Your task to perform on an android device: Search for usb-c on costco, select the first entry, add it to the cart, then select checkout. Image 0: 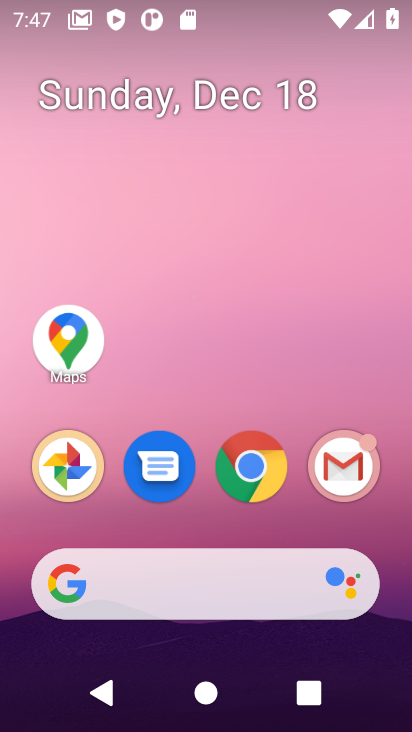
Step 0: click (258, 469)
Your task to perform on an android device: Search for usb-c on costco, select the first entry, add it to the cart, then select checkout. Image 1: 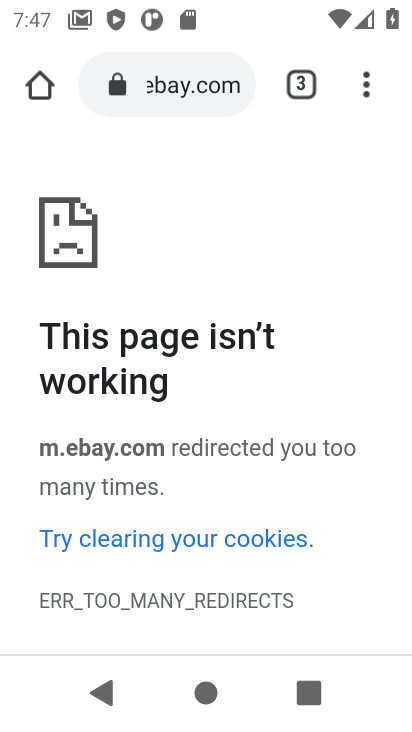
Step 1: click (182, 95)
Your task to perform on an android device: Search for usb-c on costco, select the first entry, add it to the cart, then select checkout. Image 2: 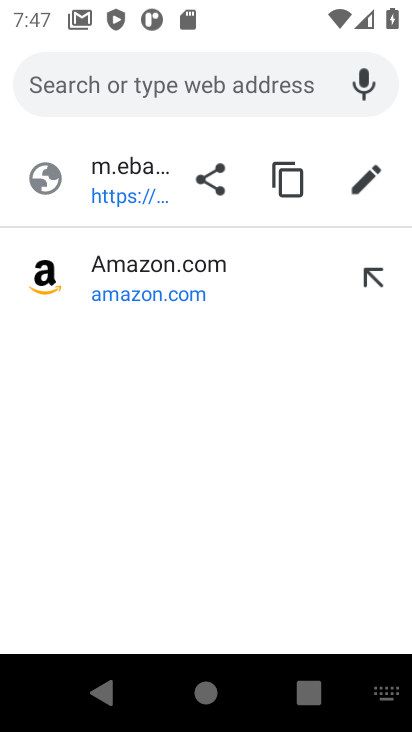
Step 2: type "COSTCO"
Your task to perform on an android device: Search for usb-c on costco, select the first entry, add it to the cart, then select checkout. Image 3: 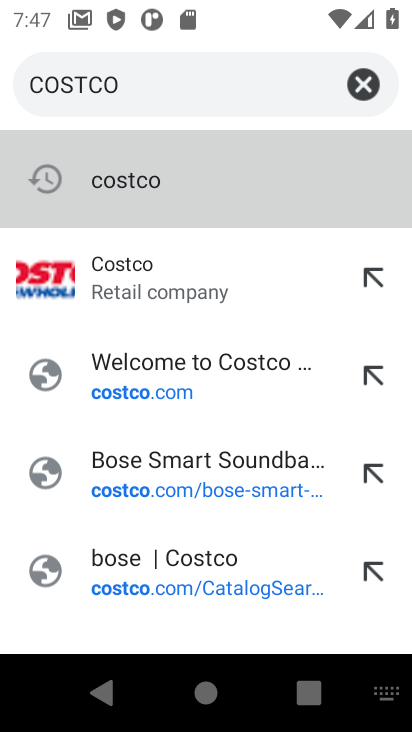
Step 3: click (126, 290)
Your task to perform on an android device: Search for usb-c on costco, select the first entry, add it to the cart, then select checkout. Image 4: 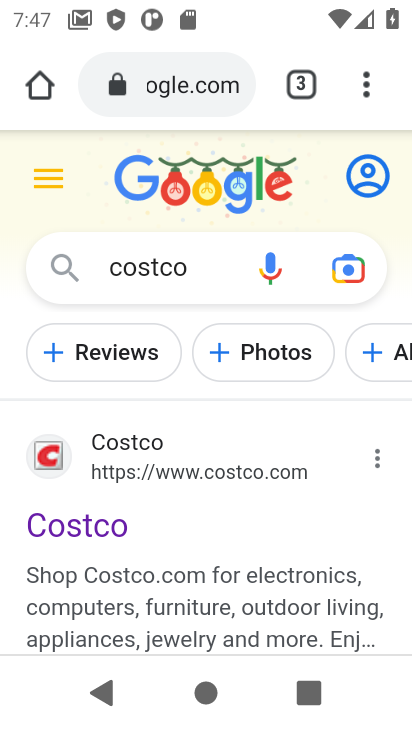
Step 4: click (95, 514)
Your task to perform on an android device: Search for usb-c on costco, select the first entry, add it to the cart, then select checkout. Image 5: 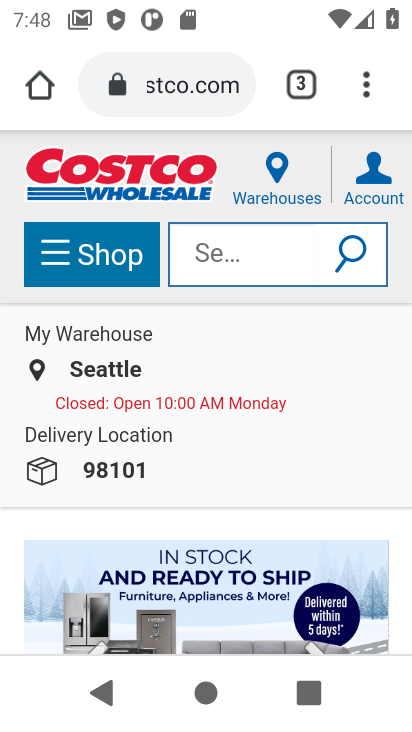
Step 5: click (270, 250)
Your task to perform on an android device: Search for usb-c on costco, select the first entry, add it to the cart, then select checkout. Image 6: 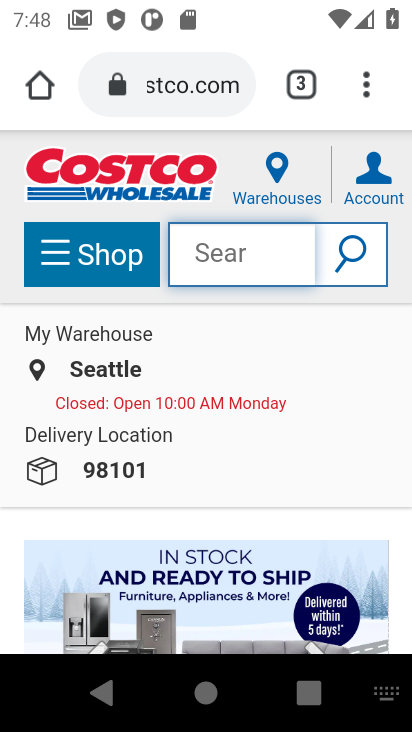
Step 6: type "usb-c"
Your task to perform on an android device: Search for usb-c on costco, select the first entry, add it to the cart, then select checkout. Image 7: 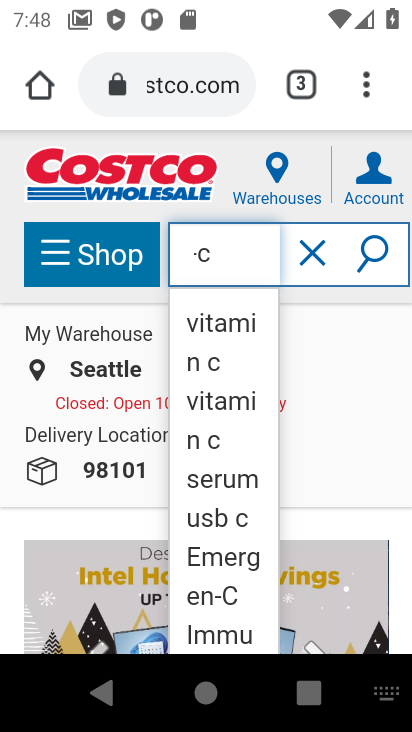
Step 7: click (248, 318)
Your task to perform on an android device: Search for usb-c on costco, select the first entry, add it to the cart, then select checkout. Image 8: 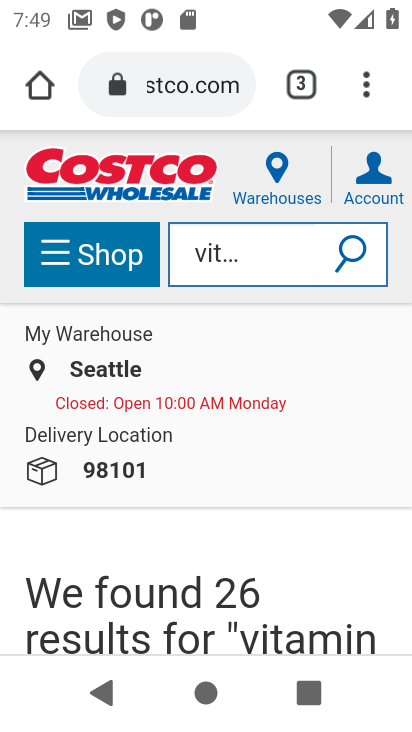
Step 8: drag from (227, 611) to (200, 76)
Your task to perform on an android device: Search for usb-c on costco, select the first entry, add it to the cart, then select checkout. Image 9: 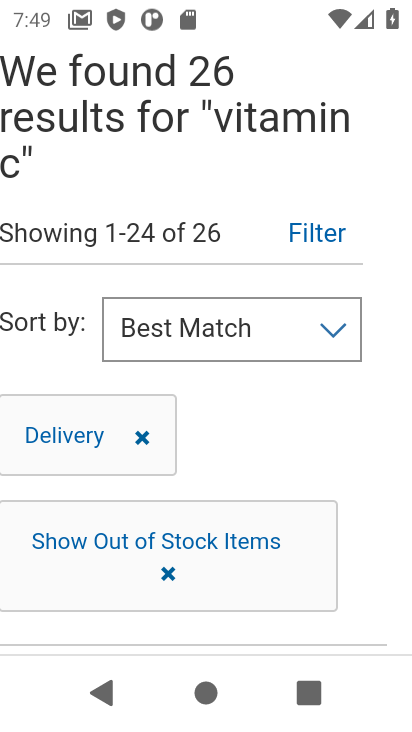
Step 9: drag from (257, 578) to (228, 126)
Your task to perform on an android device: Search for usb-c on costco, select the first entry, add it to the cart, then select checkout. Image 10: 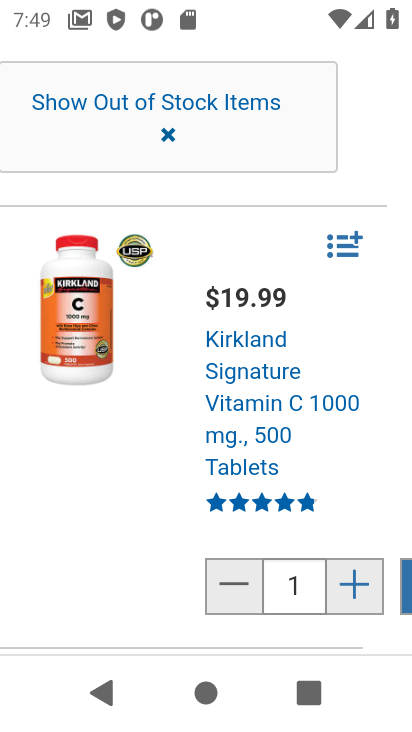
Step 10: click (349, 371)
Your task to perform on an android device: Search for usb-c on costco, select the first entry, add it to the cart, then select checkout. Image 11: 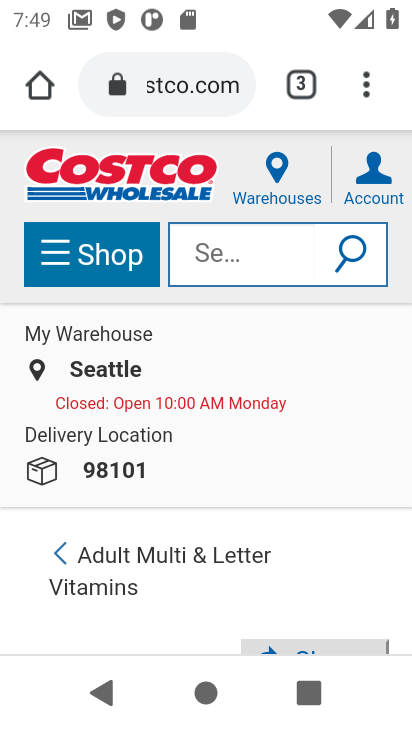
Step 11: drag from (226, 591) to (222, 155)
Your task to perform on an android device: Search for usb-c on costco, select the first entry, add it to the cart, then select checkout. Image 12: 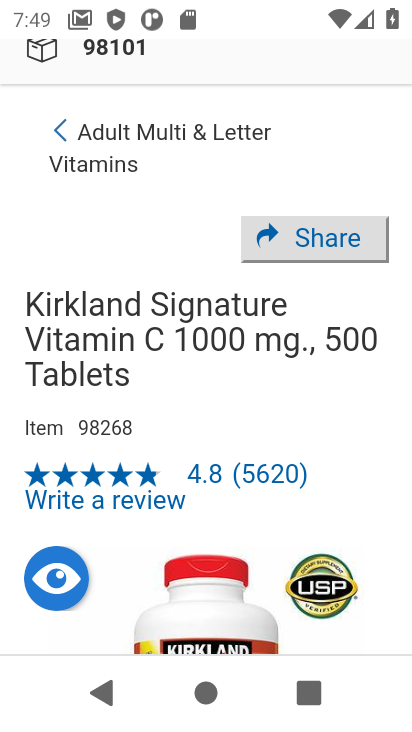
Step 12: drag from (298, 547) to (234, 173)
Your task to perform on an android device: Search for usb-c on costco, select the first entry, add it to the cart, then select checkout. Image 13: 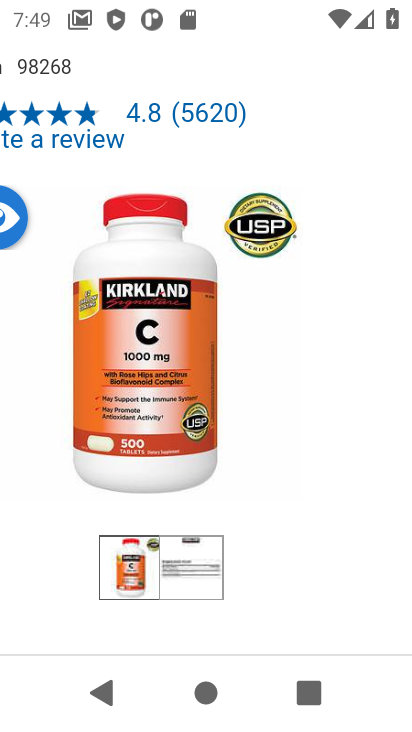
Step 13: drag from (205, 601) to (227, 226)
Your task to perform on an android device: Search for usb-c on costco, select the first entry, add it to the cart, then select checkout. Image 14: 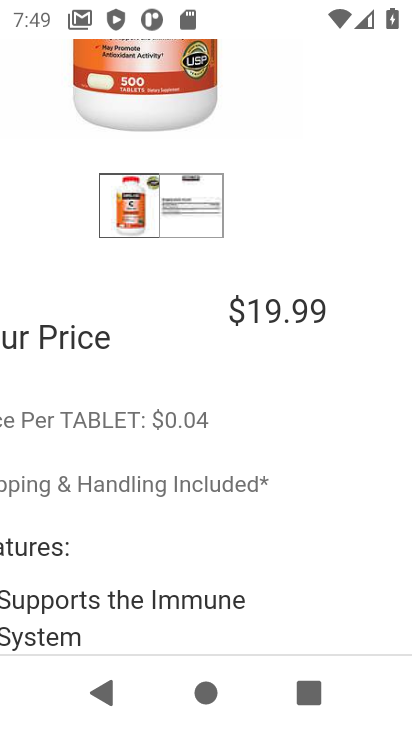
Step 14: drag from (110, 554) to (277, 517)
Your task to perform on an android device: Search for usb-c on costco, select the first entry, add it to the cart, then select checkout. Image 15: 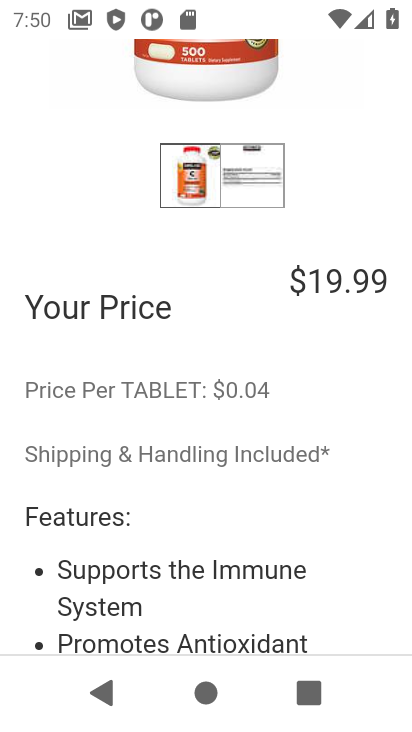
Step 15: drag from (229, 609) to (245, 176)
Your task to perform on an android device: Search for usb-c on costco, select the first entry, add it to the cart, then select checkout. Image 16: 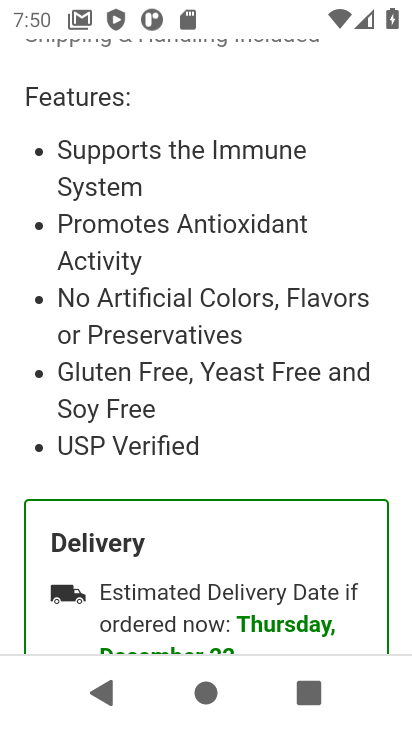
Step 16: drag from (201, 615) to (182, 332)
Your task to perform on an android device: Search for usb-c on costco, select the first entry, add it to the cart, then select checkout. Image 17: 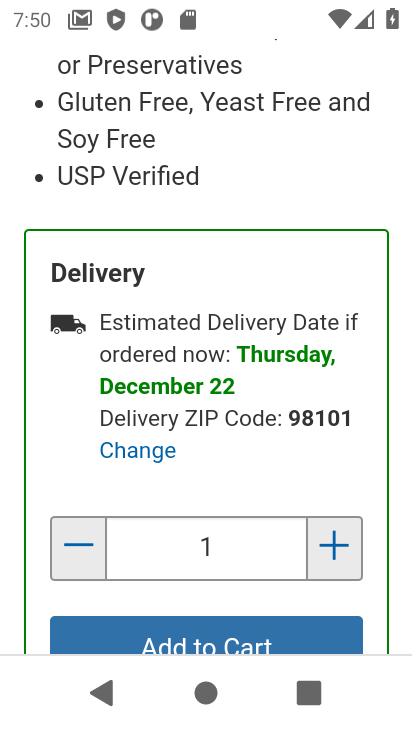
Step 17: click (198, 641)
Your task to perform on an android device: Search for usb-c on costco, select the first entry, add it to the cart, then select checkout. Image 18: 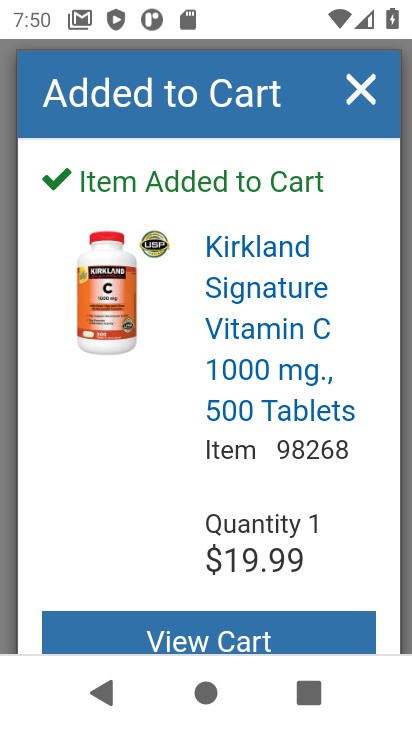
Step 18: task complete